Your task to perform on an android device: How big is the earth? Image 0: 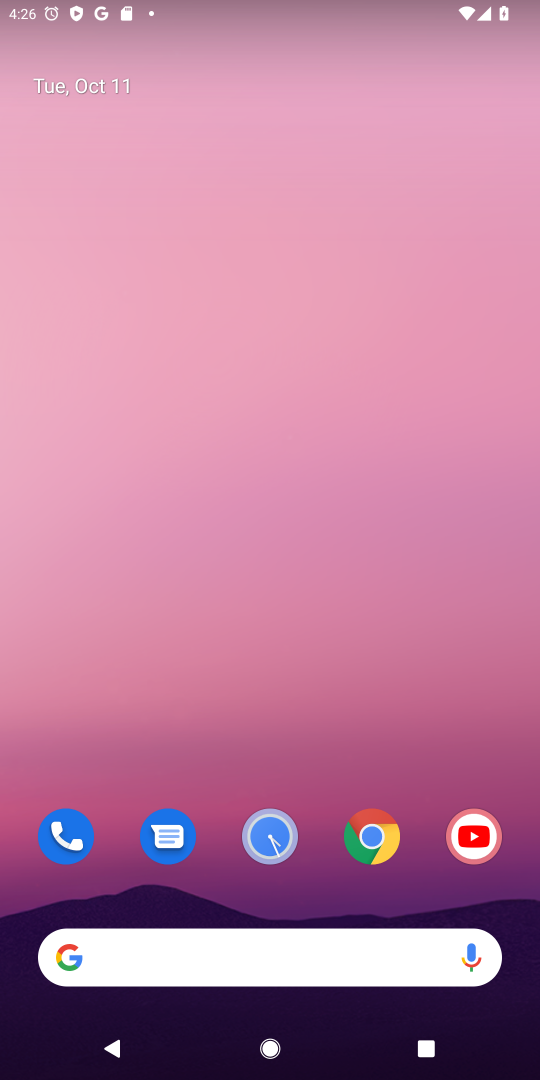
Step 0: click (270, 966)
Your task to perform on an android device: How big is the earth? Image 1: 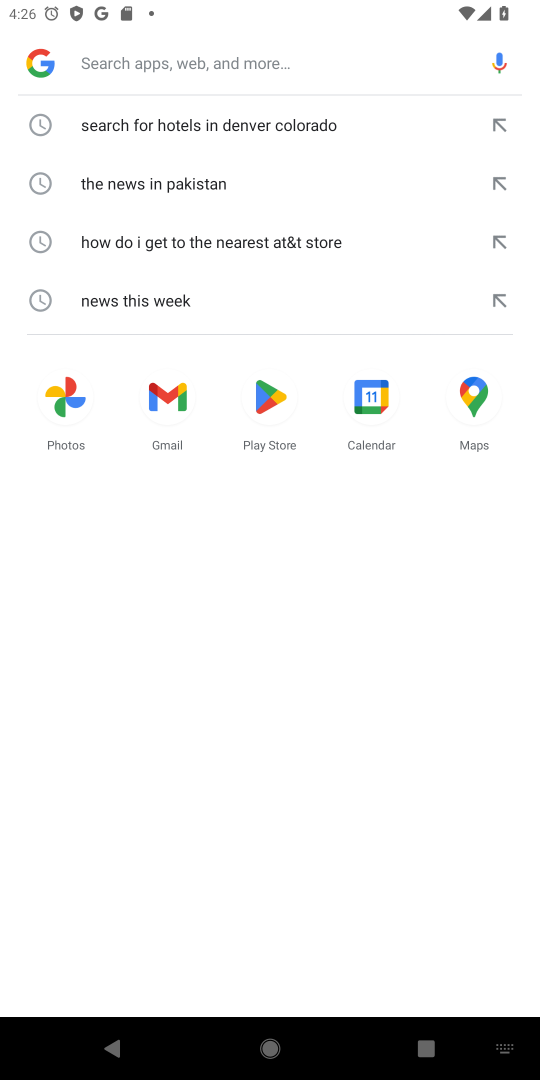
Step 1: type "How big is the earth?"
Your task to perform on an android device: How big is the earth? Image 2: 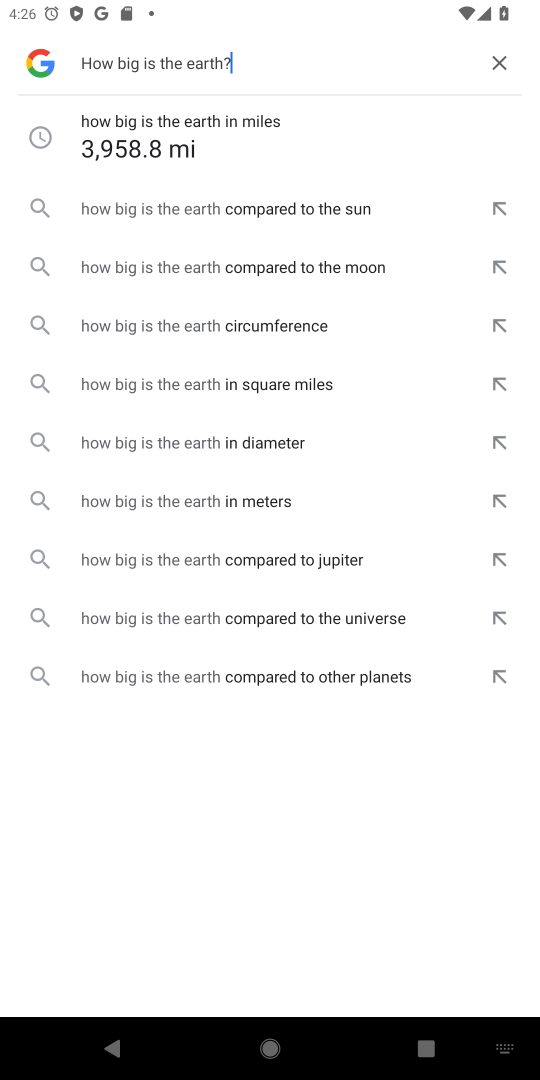
Step 2: click (142, 137)
Your task to perform on an android device: How big is the earth? Image 3: 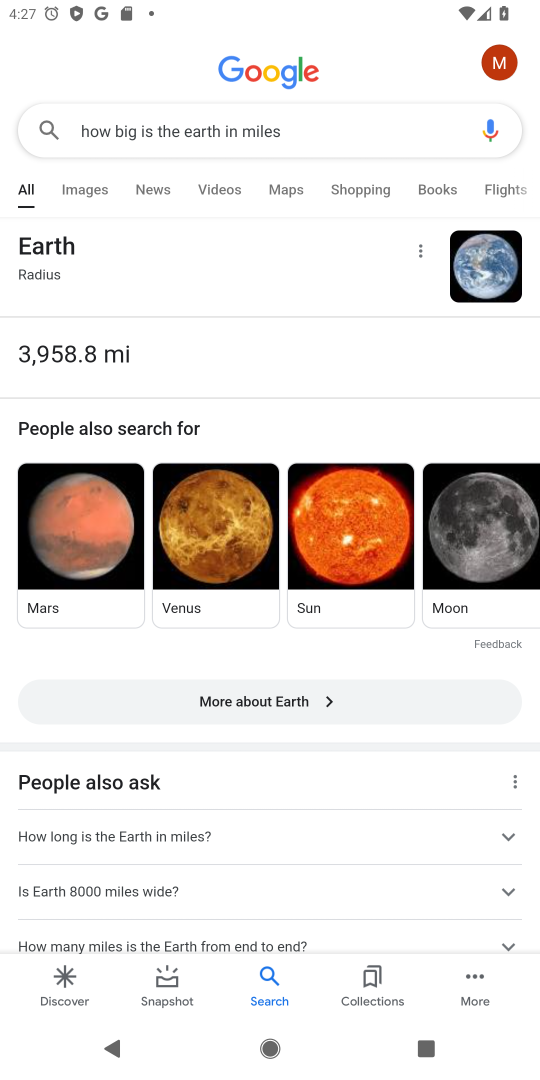
Step 3: task complete